Your task to perform on an android device: Open Amazon Image 0: 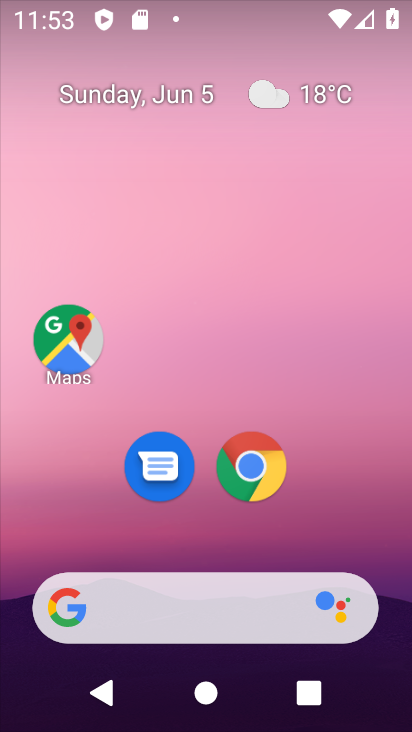
Step 0: drag from (373, 535) to (219, 29)
Your task to perform on an android device: Open Amazon Image 1: 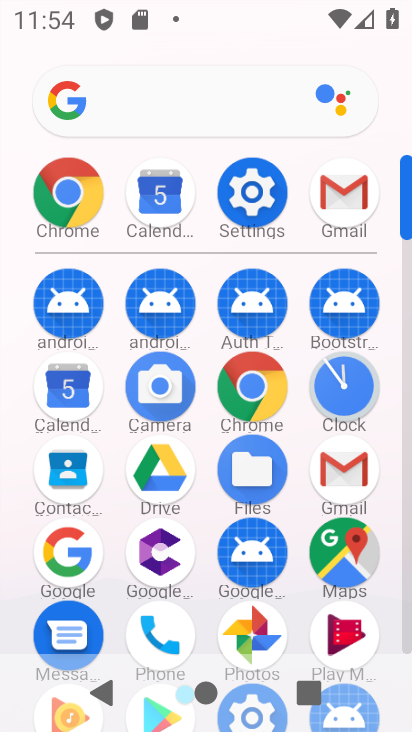
Step 1: click (67, 175)
Your task to perform on an android device: Open Amazon Image 2: 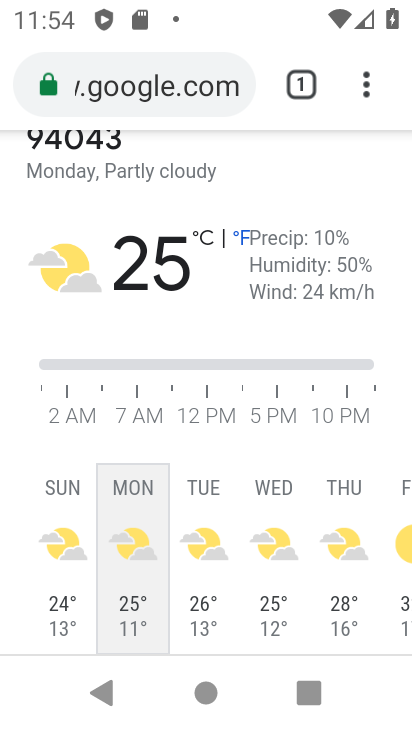
Step 2: click (181, 75)
Your task to perform on an android device: Open Amazon Image 3: 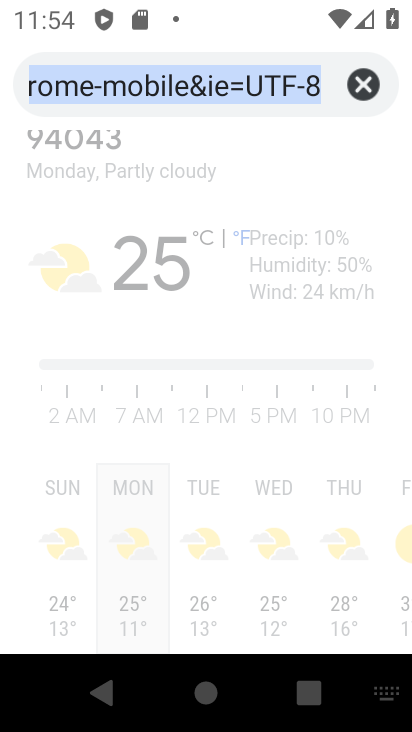
Step 3: click (361, 80)
Your task to perform on an android device: Open Amazon Image 4: 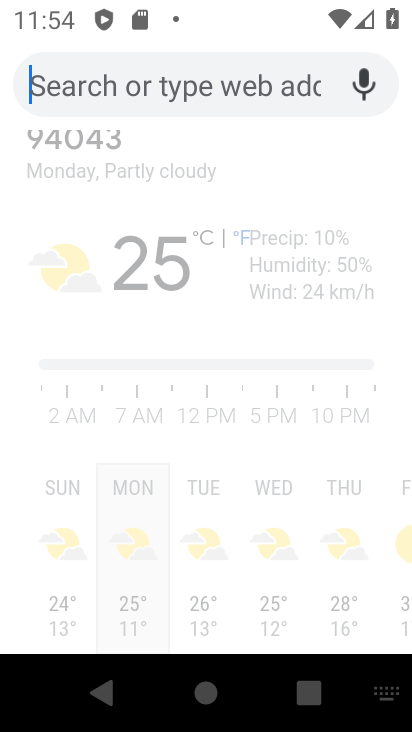
Step 4: type "Amazon"
Your task to perform on an android device: Open Amazon Image 5: 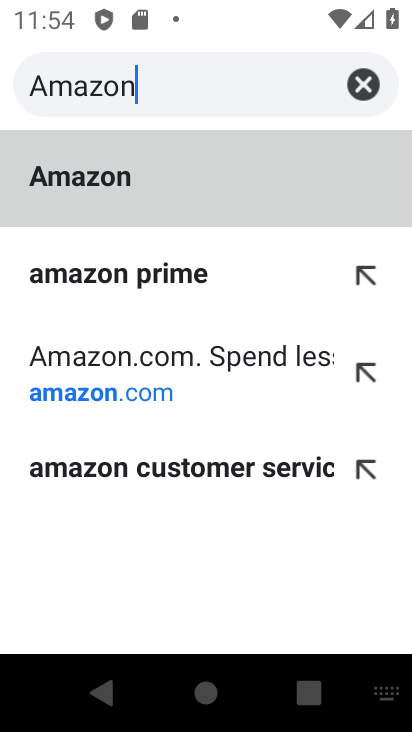
Step 5: type ""
Your task to perform on an android device: Open Amazon Image 6: 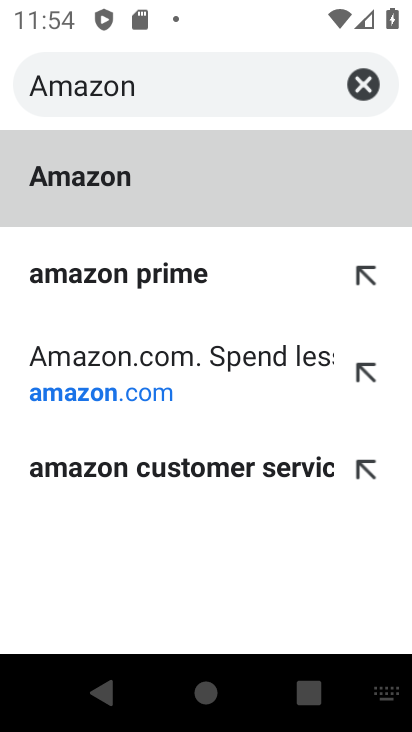
Step 6: click (102, 372)
Your task to perform on an android device: Open Amazon Image 7: 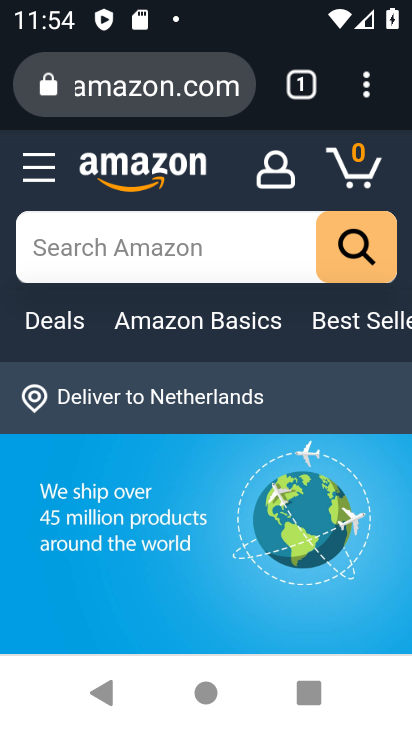
Step 7: task complete